Your task to perform on an android device: turn on javascript in the chrome app Image 0: 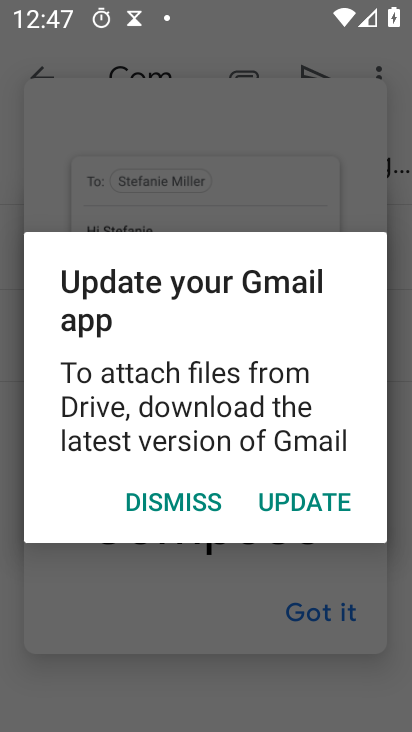
Step 0: press home button
Your task to perform on an android device: turn on javascript in the chrome app Image 1: 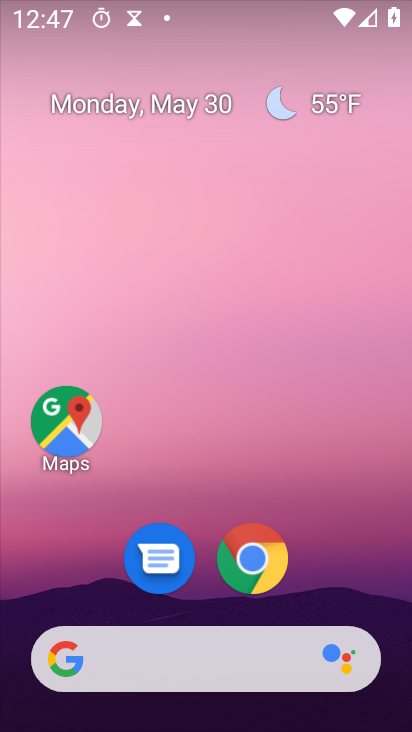
Step 1: drag from (357, 571) to (369, 64)
Your task to perform on an android device: turn on javascript in the chrome app Image 2: 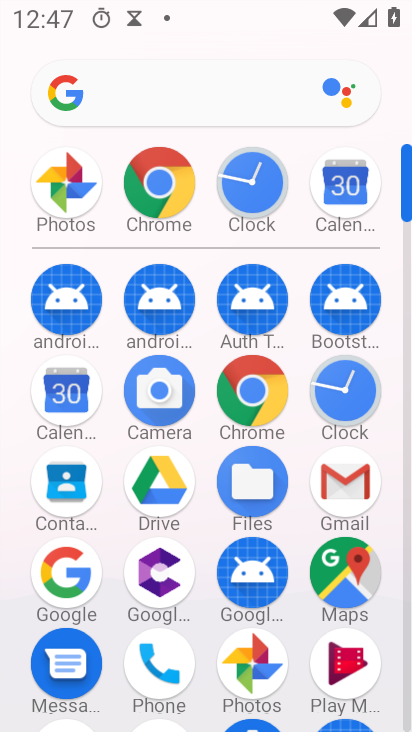
Step 2: click (158, 201)
Your task to perform on an android device: turn on javascript in the chrome app Image 3: 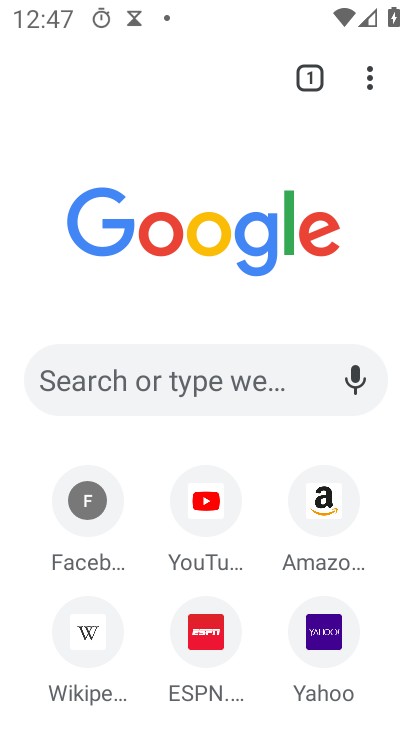
Step 3: drag from (378, 85) to (120, 588)
Your task to perform on an android device: turn on javascript in the chrome app Image 4: 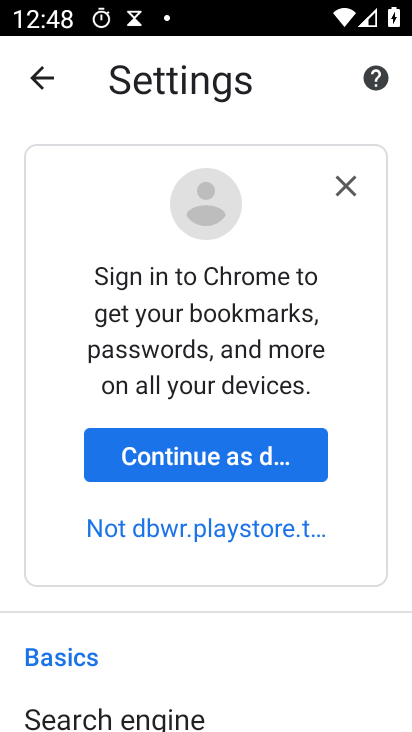
Step 4: drag from (119, 590) to (169, 219)
Your task to perform on an android device: turn on javascript in the chrome app Image 5: 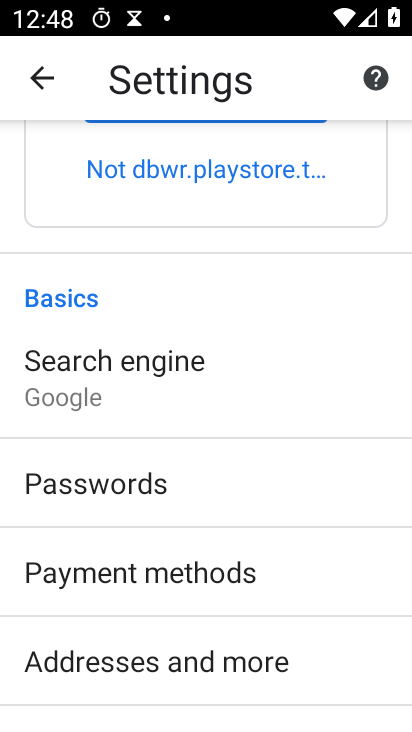
Step 5: drag from (114, 629) to (193, 244)
Your task to perform on an android device: turn on javascript in the chrome app Image 6: 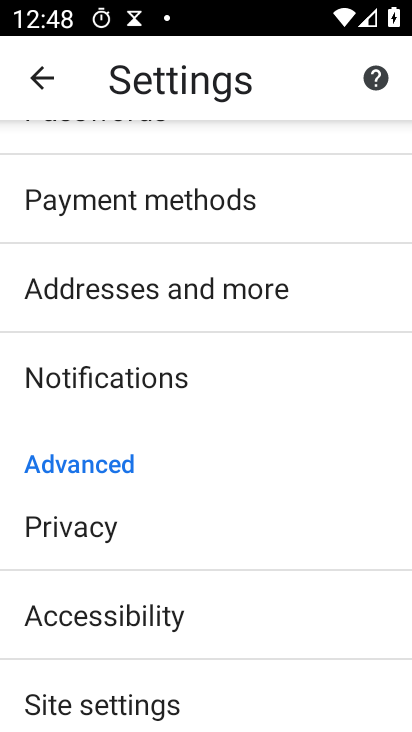
Step 6: drag from (96, 638) to (170, 330)
Your task to perform on an android device: turn on javascript in the chrome app Image 7: 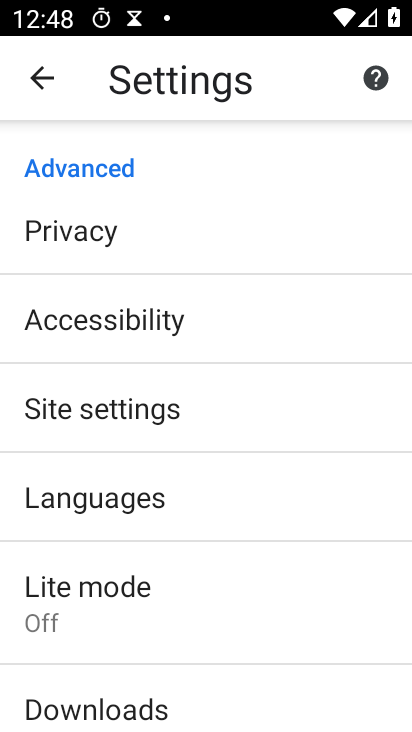
Step 7: click (126, 406)
Your task to perform on an android device: turn on javascript in the chrome app Image 8: 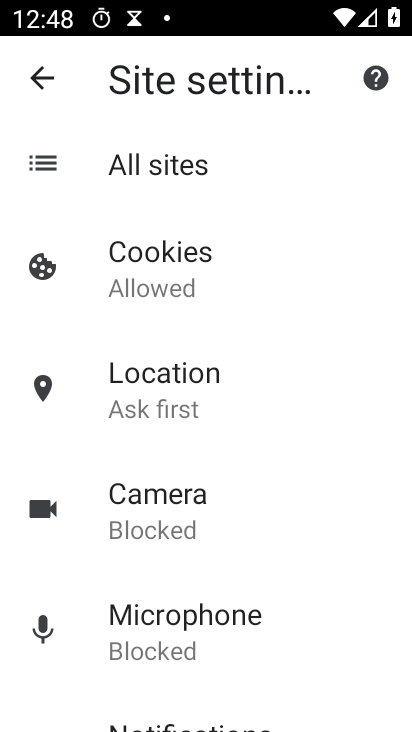
Step 8: drag from (164, 640) to (249, 224)
Your task to perform on an android device: turn on javascript in the chrome app Image 9: 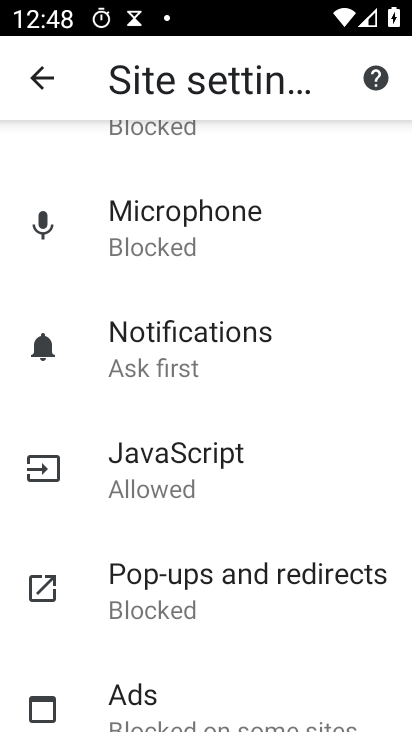
Step 9: click (175, 463)
Your task to perform on an android device: turn on javascript in the chrome app Image 10: 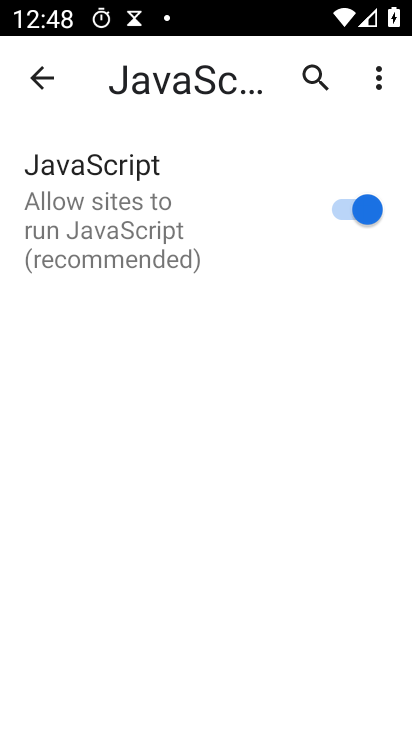
Step 10: task complete